Your task to perform on an android device: see sites visited before in the chrome app Image 0: 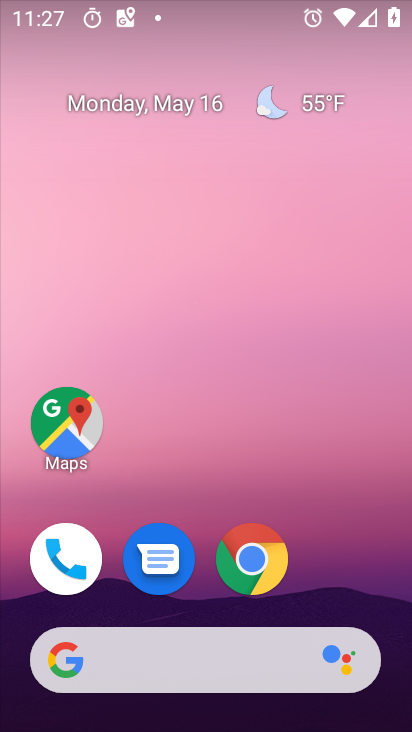
Step 0: click (251, 556)
Your task to perform on an android device: see sites visited before in the chrome app Image 1: 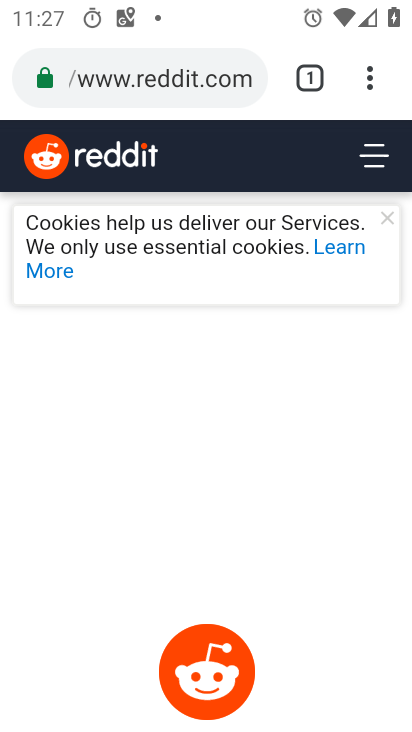
Step 1: task complete